Your task to perform on an android device: make emails show in primary in the gmail app Image 0: 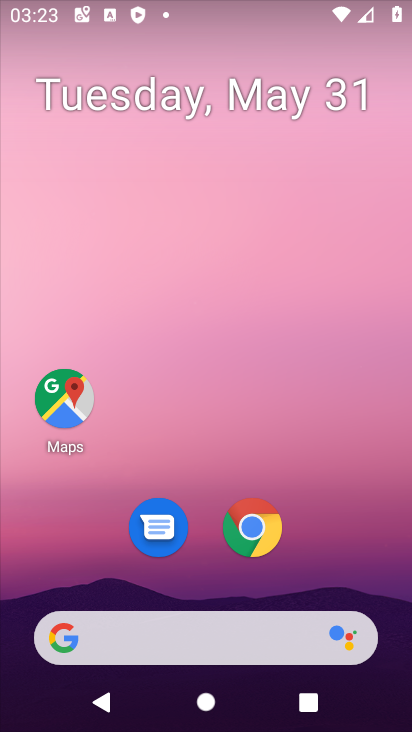
Step 0: drag from (402, 628) to (306, 81)
Your task to perform on an android device: make emails show in primary in the gmail app Image 1: 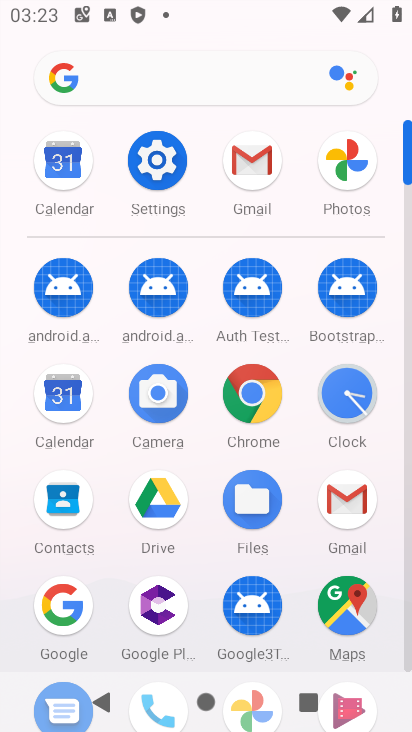
Step 1: click (347, 498)
Your task to perform on an android device: make emails show in primary in the gmail app Image 2: 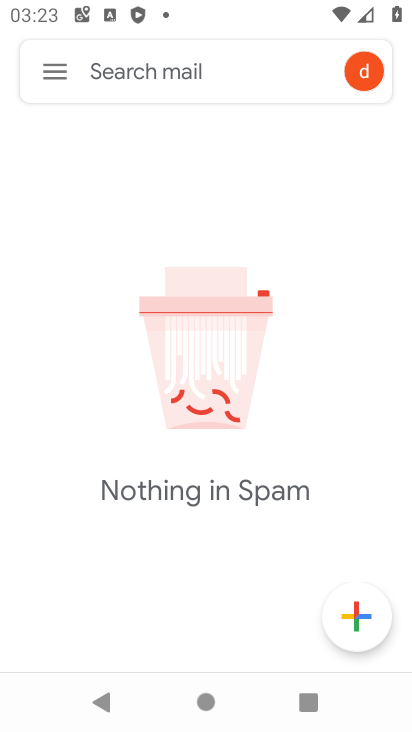
Step 2: click (54, 77)
Your task to perform on an android device: make emails show in primary in the gmail app Image 3: 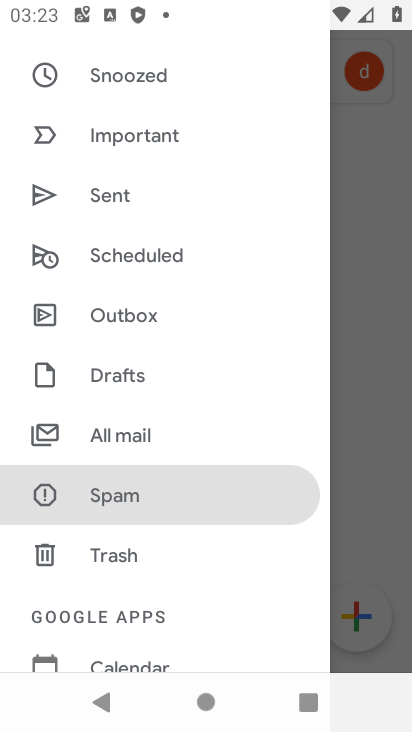
Step 3: drag from (172, 632) to (212, 230)
Your task to perform on an android device: make emails show in primary in the gmail app Image 4: 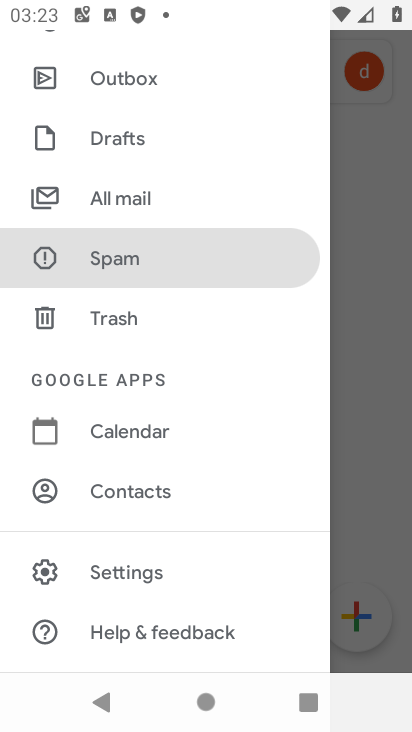
Step 4: click (141, 577)
Your task to perform on an android device: make emails show in primary in the gmail app Image 5: 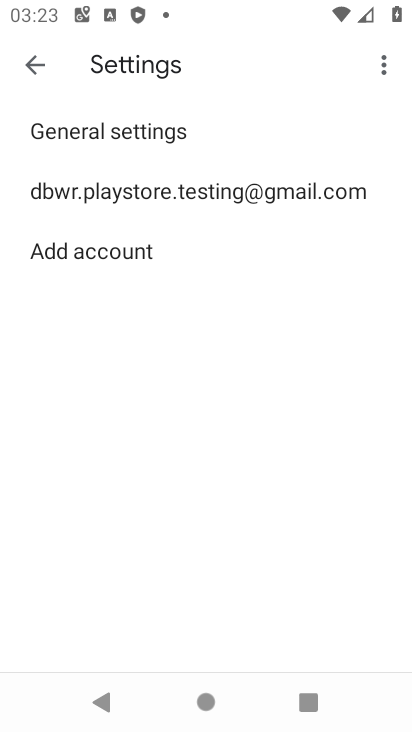
Step 5: click (160, 204)
Your task to perform on an android device: make emails show in primary in the gmail app Image 6: 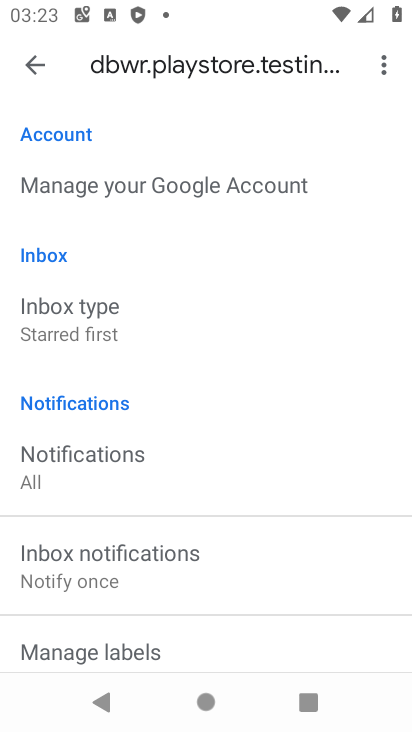
Step 6: click (70, 305)
Your task to perform on an android device: make emails show in primary in the gmail app Image 7: 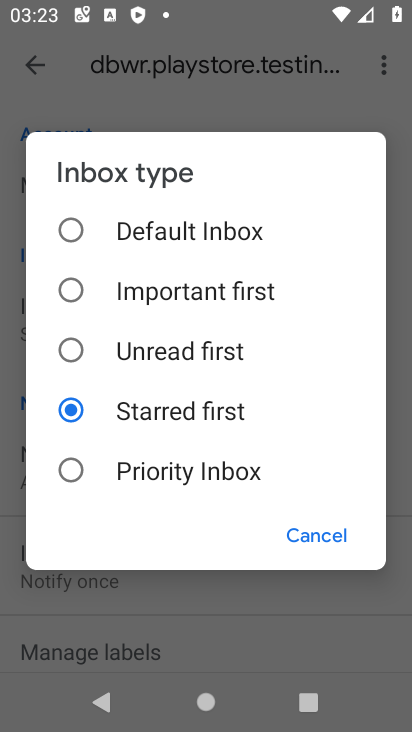
Step 7: click (77, 236)
Your task to perform on an android device: make emails show in primary in the gmail app Image 8: 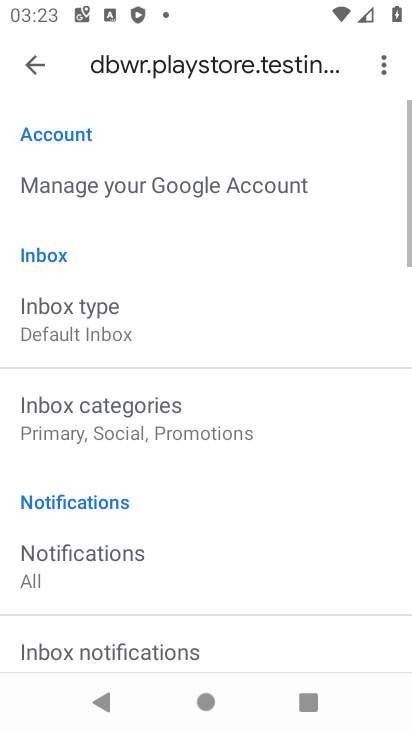
Step 8: click (157, 424)
Your task to perform on an android device: make emails show in primary in the gmail app Image 9: 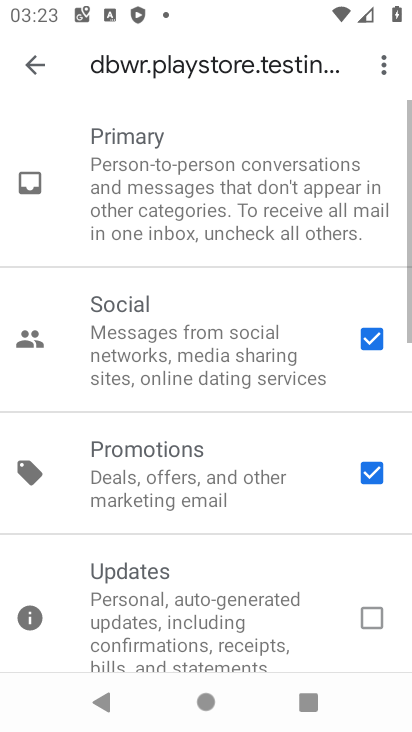
Step 9: click (374, 339)
Your task to perform on an android device: make emails show in primary in the gmail app Image 10: 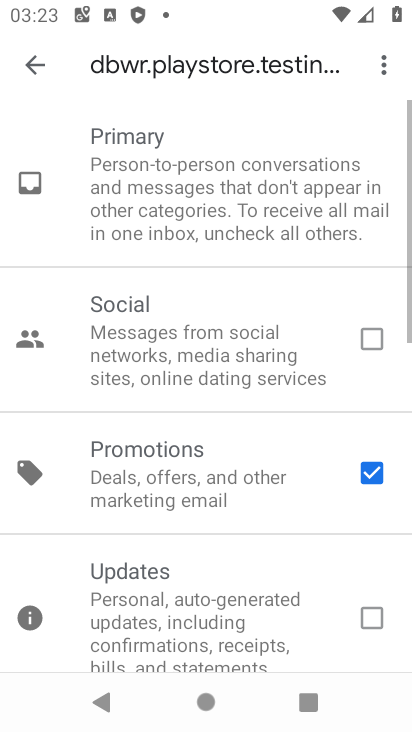
Step 10: click (372, 472)
Your task to perform on an android device: make emails show in primary in the gmail app Image 11: 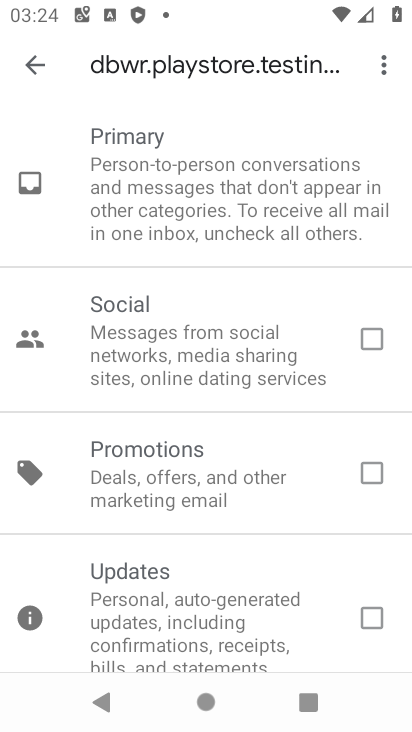
Step 11: task complete